Your task to perform on an android device: Search for sushi restaurants on Maps Image 0: 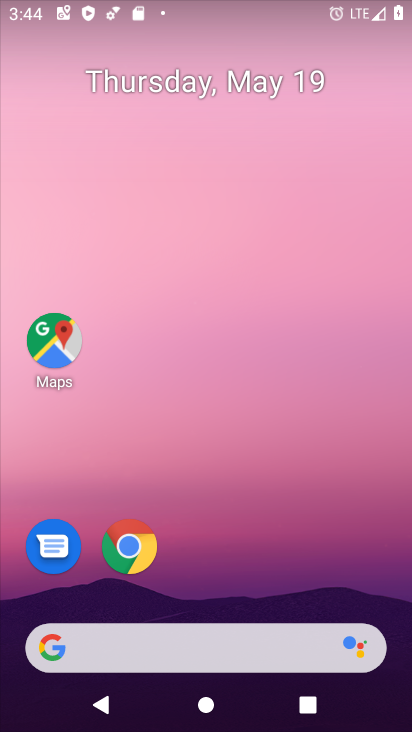
Step 0: drag from (213, 590) to (244, 2)
Your task to perform on an android device: Search for sushi restaurants on Maps Image 1: 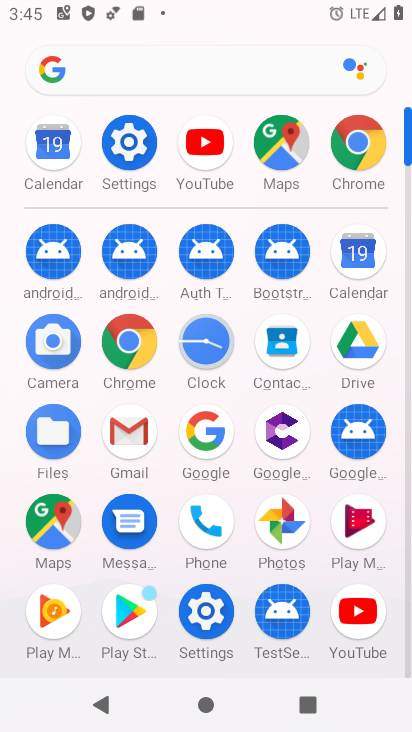
Step 1: click (272, 137)
Your task to perform on an android device: Search for sushi restaurants on Maps Image 2: 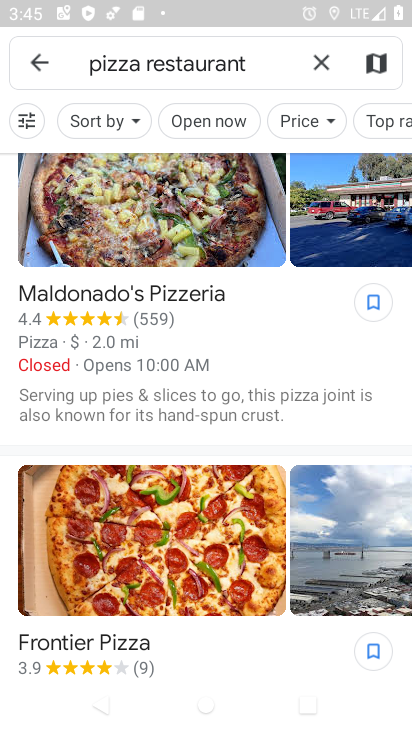
Step 2: click (315, 64)
Your task to perform on an android device: Search for sushi restaurants on Maps Image 3: 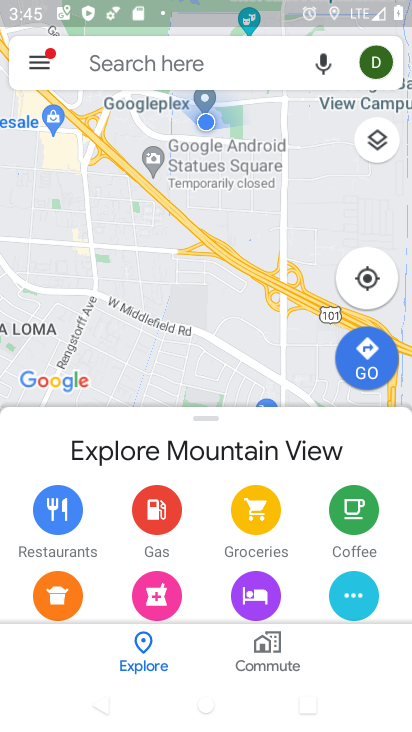
Step 3: click (134, 60)
Your task to perform on an android device: Search for sushi restaurants on Maps Image 4: 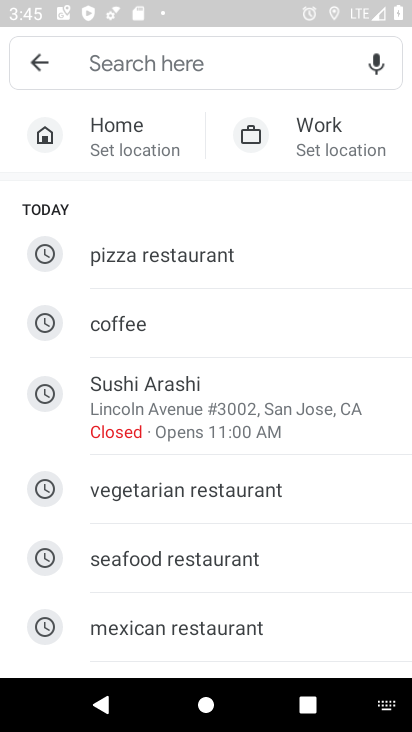
Step 4: drag from (200, 607) to (233, 157)
Your task to perform on an android device: Search for sushi restaurants on Maps Image 5: 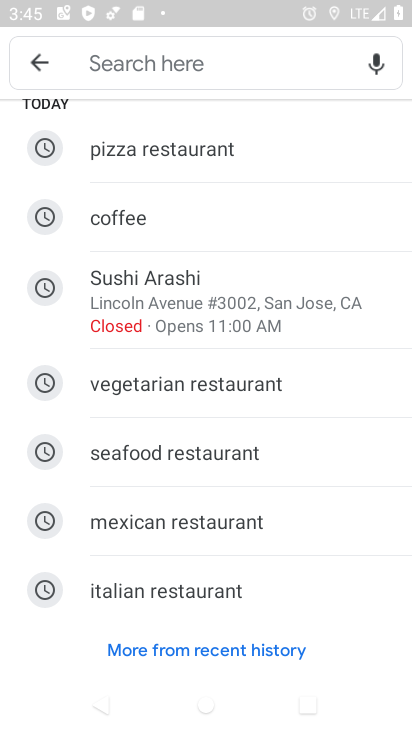
Step 5: click (156, 53)
Your task to perform on an android device: Search for sushi restaurants on Maps Image 6: 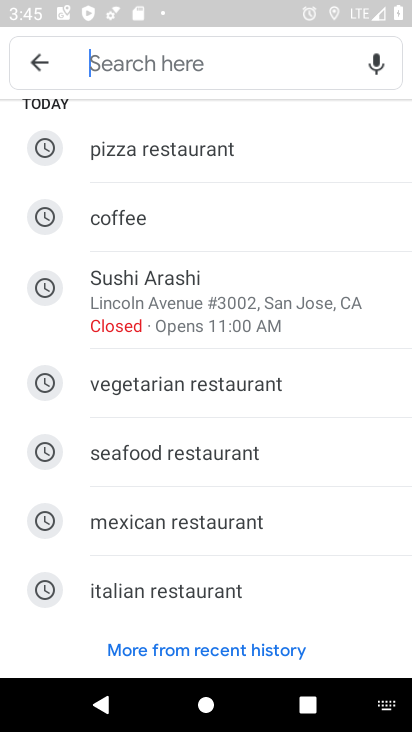
Step 6: type "sushi"
Your task to perform on an android device: Search for sushi restaurants on Maps Image 7: 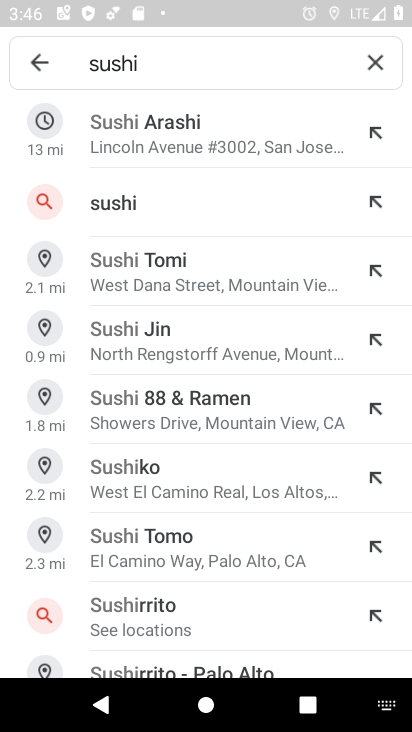
Step 7: type "restaurant"
Your task to perform on an android device: Search for sushi restaurants on Maps Image 8: 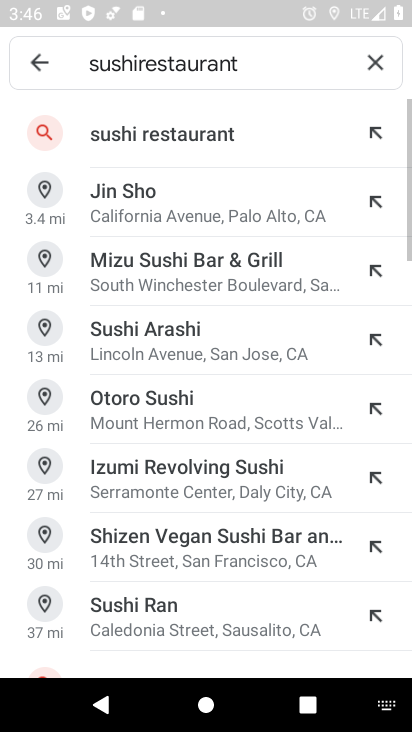
Step 8: click (204, 139)
Your task to perform on an android device: Search for sushi restaurants on Maps Image 9: 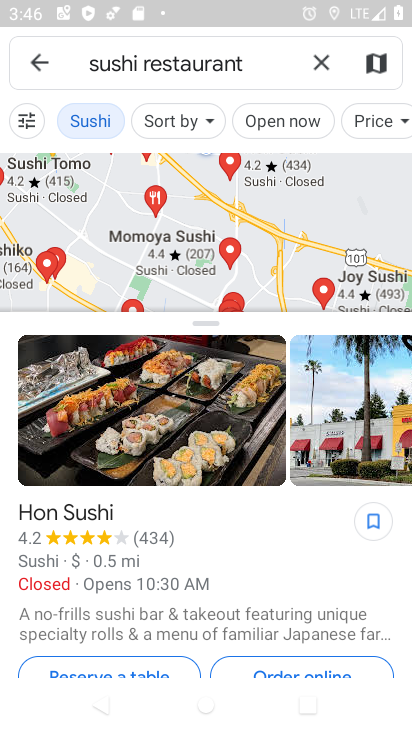
Step 9: task complete